Your task to perform on an android device: Search for sushi restaurants on Maps Image 0: 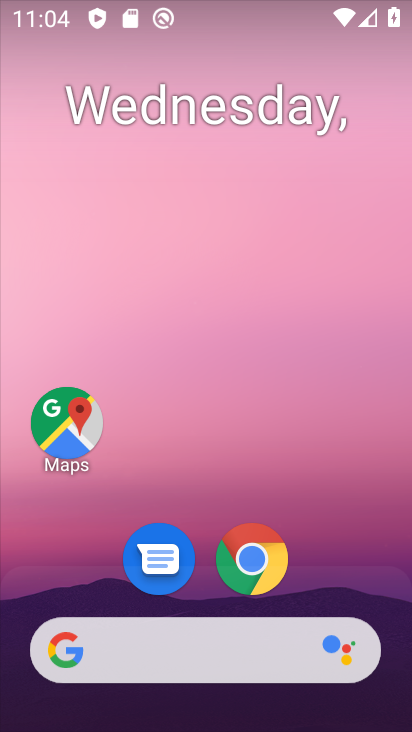
Step 0: click (62, 417)
Your task to perform on an android device: Search for sushi restaurants on Maps Image 1: 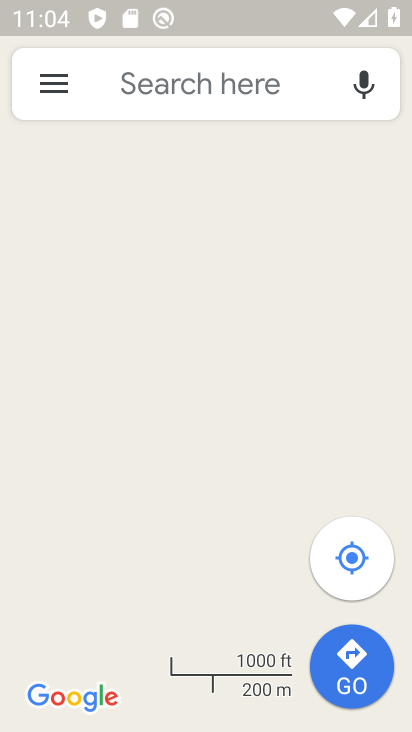
Step 1: click (165, 95)
Your task to perform on an android device: Search for sushi restaurants on Maps Image 2: 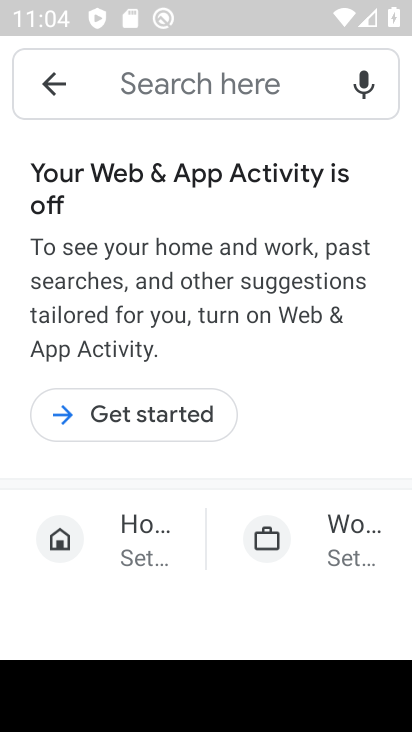
Step 2: click (165, 95)
Your task to perform on an android device: Search for sushi restaurants on Maps Image 3: 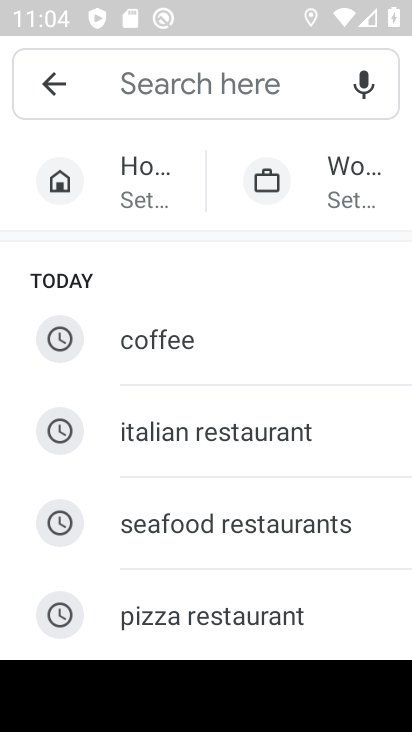
Step 3: type "sushi res"
Your task to perform on an android device: Search for sushi restaurants on Maps Image 4: 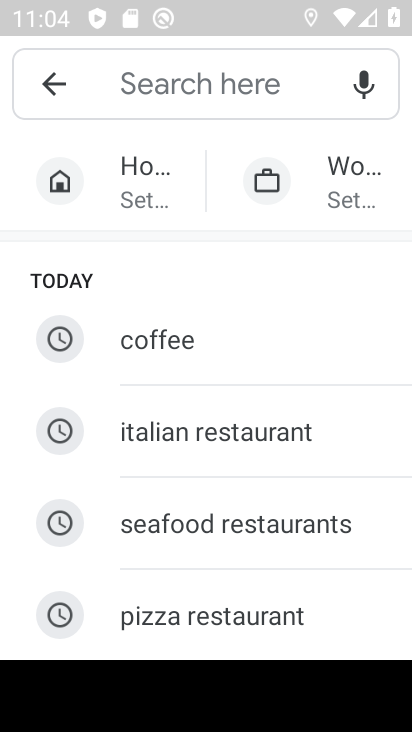
Step 4: drag from (250, 203) to (259, 168)
Your task to perform on an android device: Search for sushi restaurants on Maps Image 5: 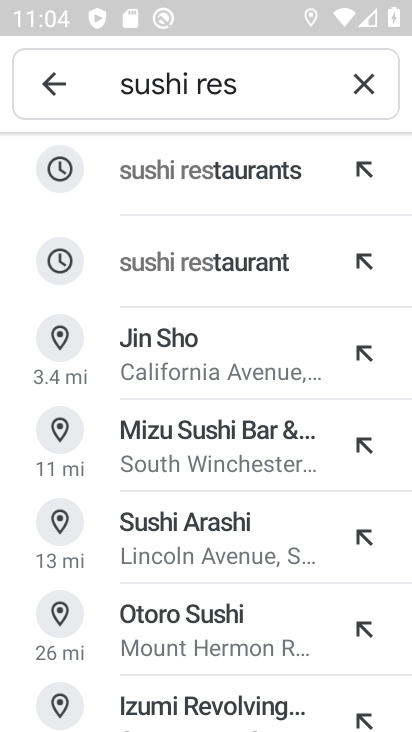
Step 5: click (212, 175)
Your task to perform on an android device: Search for sushi restaurants on Maps Image 6: 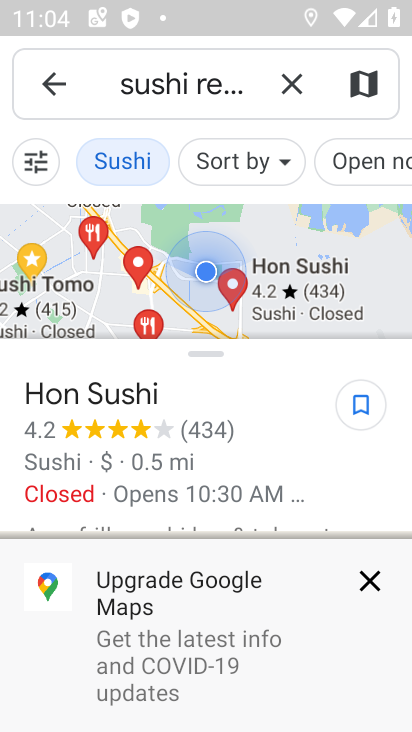
Step 6: task complete